Your task to perform on an android device: Open Reddit.com Image 0: 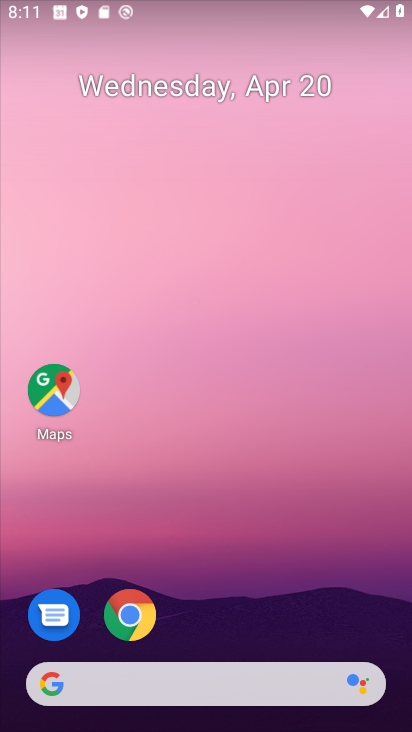
Step 0: click (129, 619)
Your task to perform on an android device: Open Reddit.com Image 1: 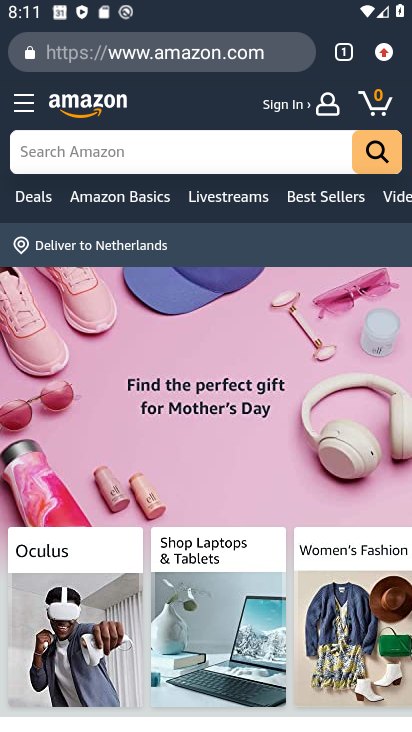
Step 1: click (280, 62)
Your task to perform on an android device: Open Reddit.com Image 2: 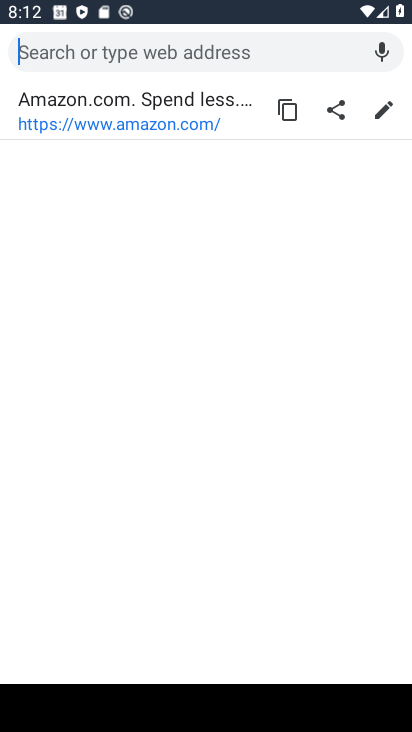
Step 2: type "Reddit.com"
Your task to perform on an android device: Open Reddit.com Image 3: 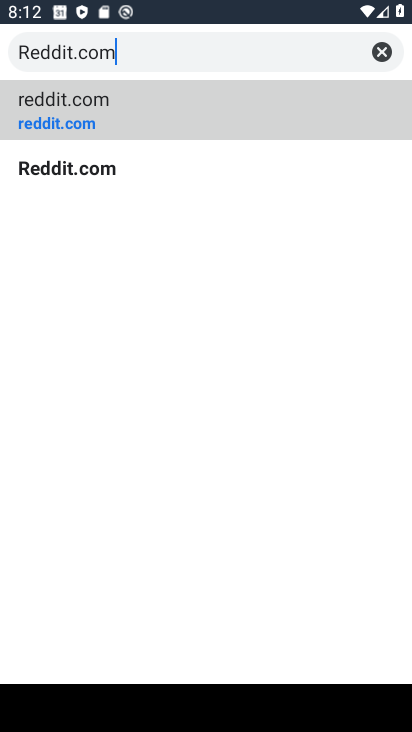
Step 3: click (215, 104)
Your task to perform on an android device: Open Reddit.com Image 4: 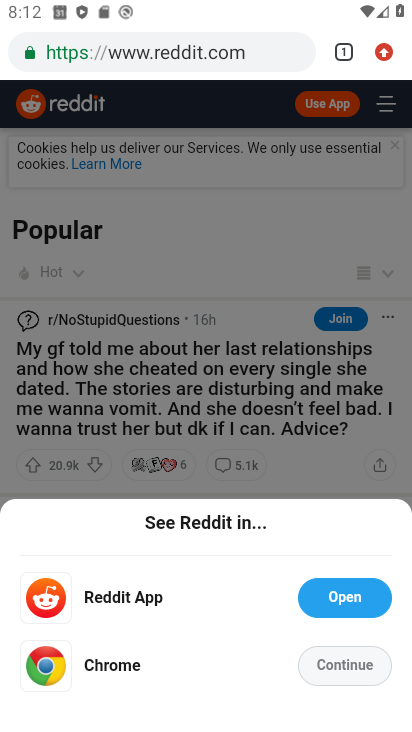
Step 4: task complete